Your task to perform on an android device: Turn off the flashlight Image 0: 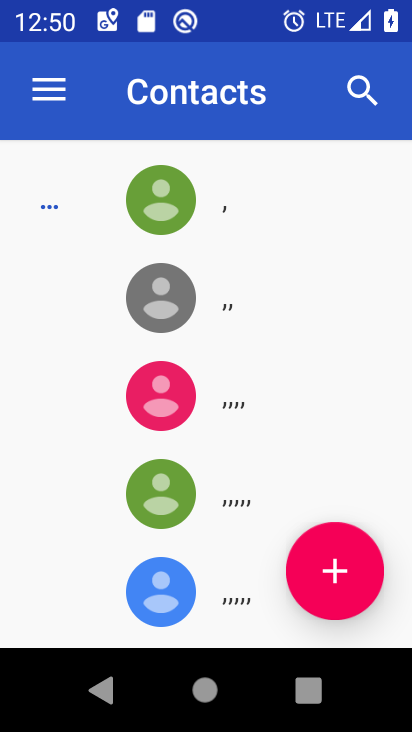
Step 0: press home button
Your task to perform on an android device: Turn off the flashlight Image 1: 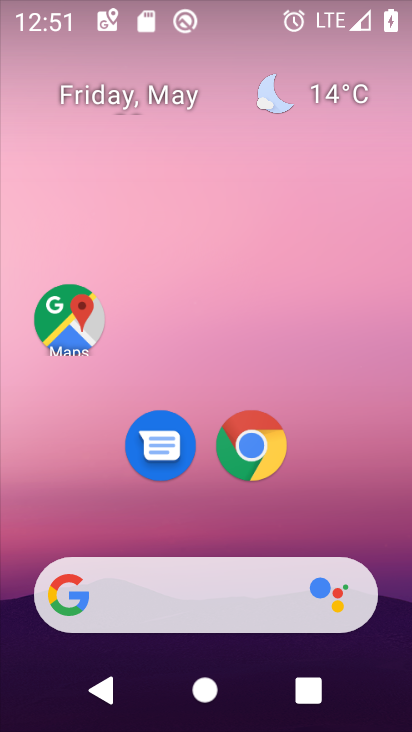
Step 1: drag from (16, 584) to (246, 149)
Your task to perform on an android device: Turn off the flashlight Image 2: 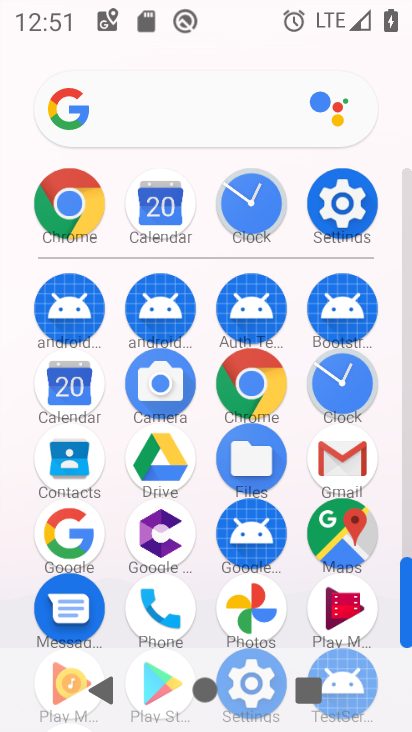
Step 2: click (354, 209)
Your task to perform on an android device: Turn off the flashlight Image 3: 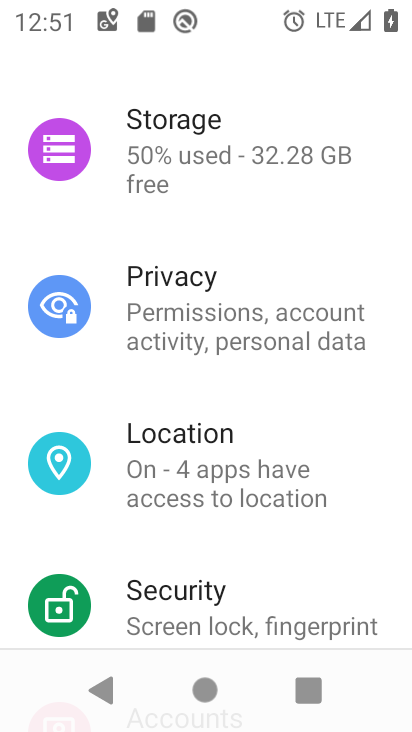
Step 3: click (183, 316)
Your task to perform on an android device: Turn off the flashlight Image 4: 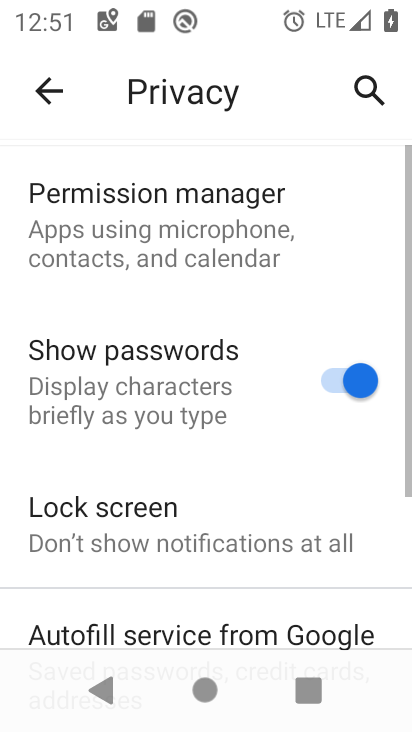
Step 4: task complete